Your task to perform on an android device: turn vacation reply on in the gmail app Image 0: 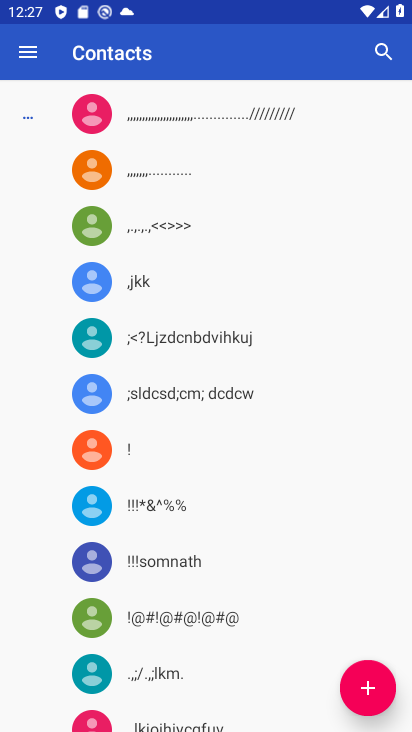
Step 0: press home button
Your task to perform on an android device: turn vacation reply on in the gmail app Image 1: 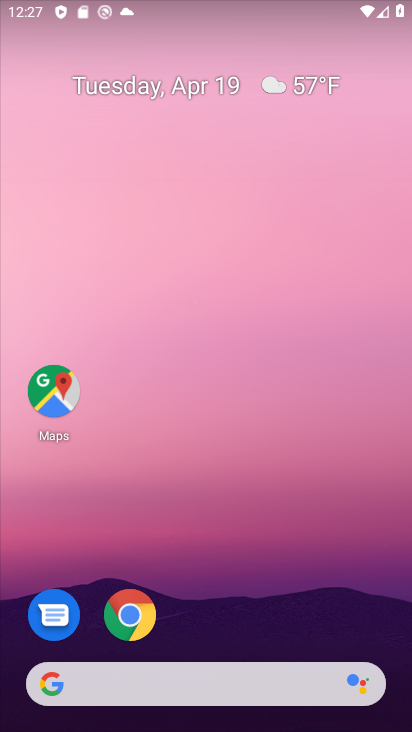
Step 1: drag from (216, 627) to (219, 235)
Your task to perform on an android device: turn vacation reply on in the gmail app Image 2: 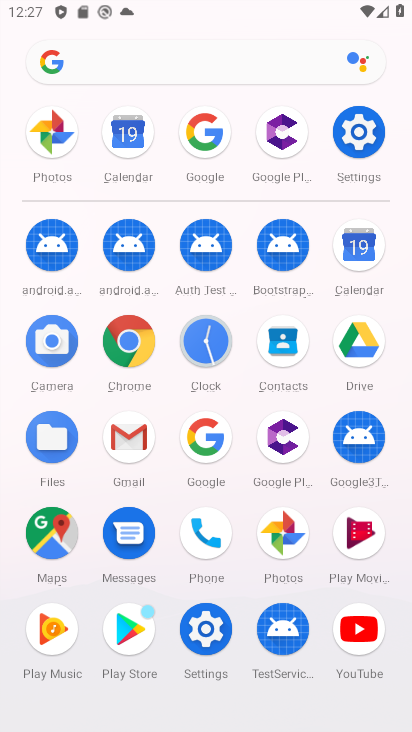
Step 2: click (133, 442)
Your task to perform on an android device: turn vacation reply on in the gmail app Image 3: 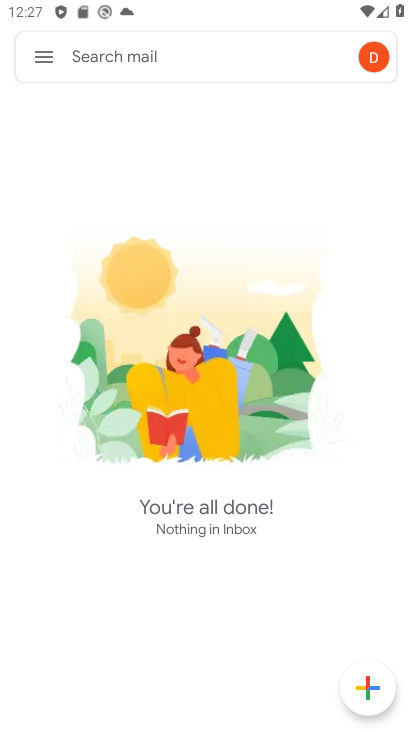
Step 3: click (50, 52)
Your task to perform on an android device: turn vacation reply on in the gmail app Image 4: 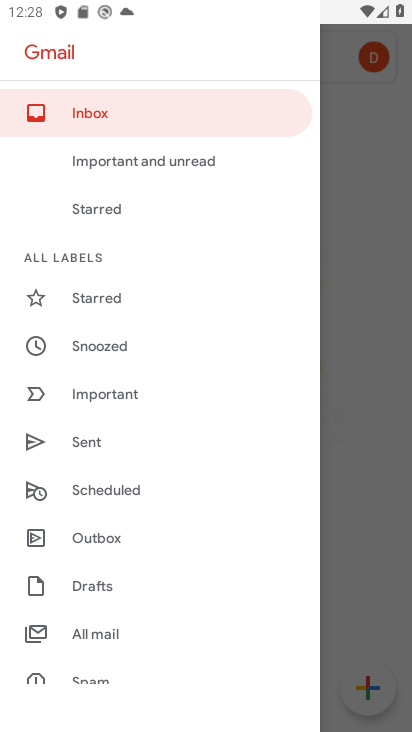
Step 4: drag from (153, 622) to (169, 282)
Your task to perform on an android device: turn vacation reply on in the gmail app Image 5: 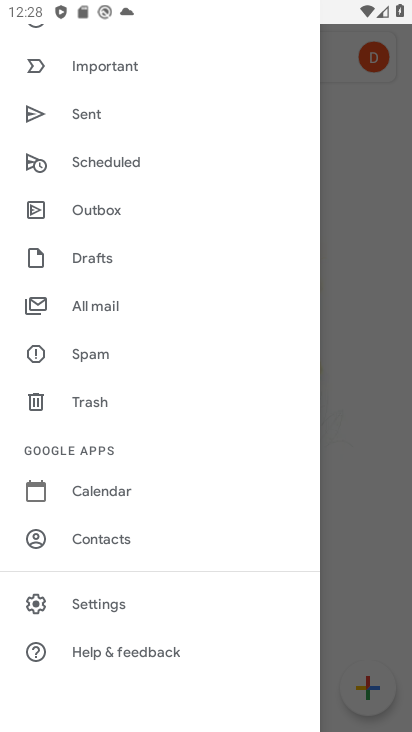
Step 5: click (101, 599)
Your task to perform on an android device: turn vacation reply on in the gmail app Image 6: 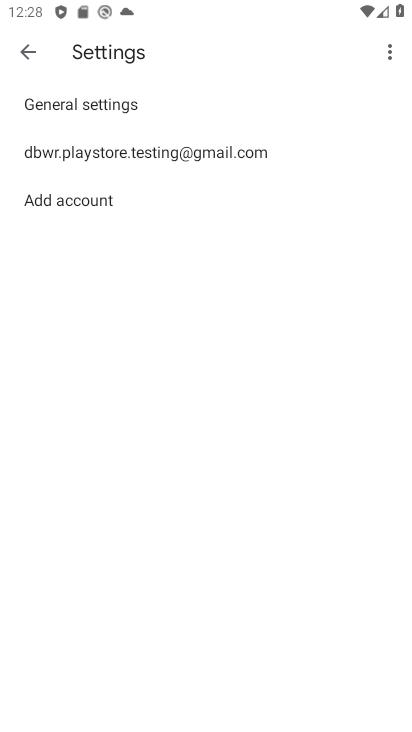
Step 6: click (150, 150)
Your task to perform on an android device: turn vacation reply on in the gmail app Image 7: 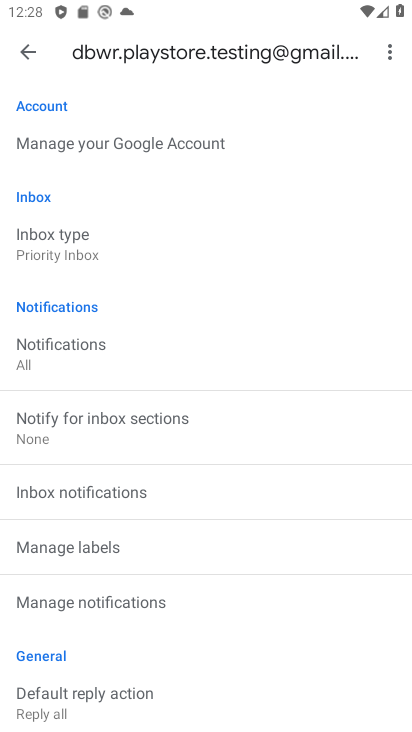
Step 7: drag from (135, 477) to (142, 240)
Your task to perform on an android device: turn vacation reply on in the gmail app Image 8: 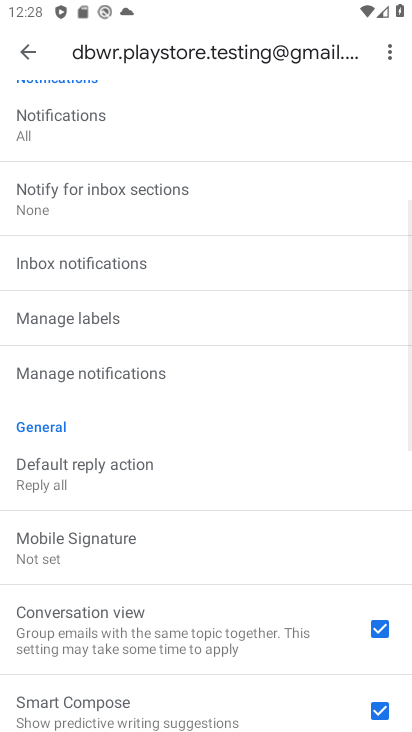
Step 8: drag from (137, 526) to (155, 337)
Your task to perform on an android device: turn vacation reply on in the gmail app Image 9: 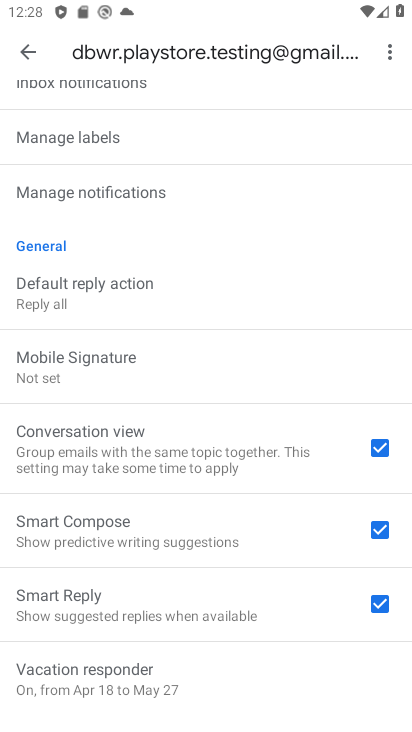
Step 9: drag from (164, 625) to (193, 338)
Your task to perform on an android device: turn vacation reply on in the gmail app Image 10: 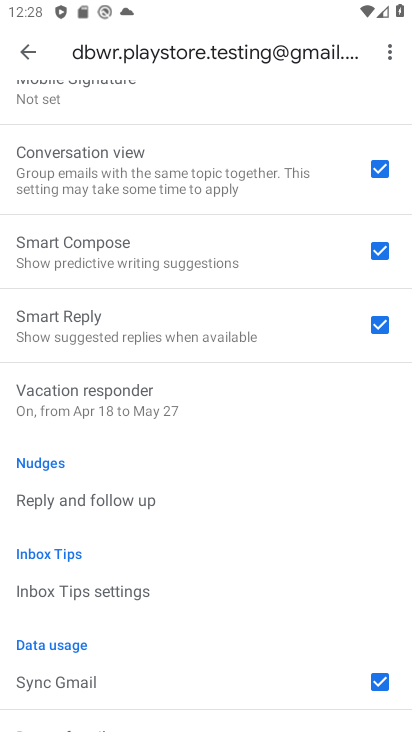
Step 10: click (116, 406)
Your task to perform on an android device: turn vacation reply on in the gmail app Image 11: 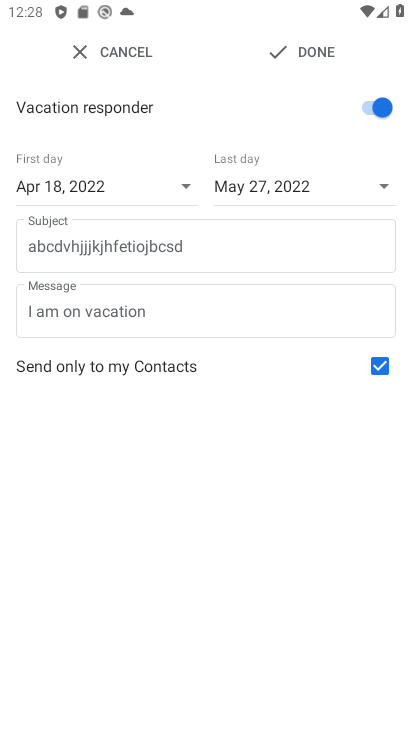
Step 11: press back button
Your task to perform on an android device: turn vacation reply on in the gmail app Image 12: 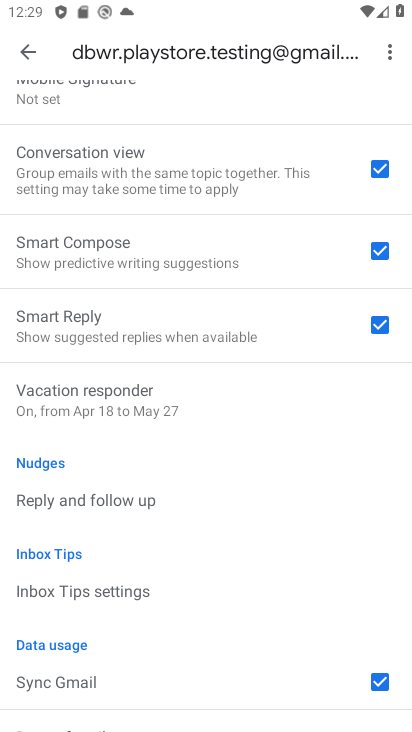
Step 12: click (110, 405)
Your task to perform on an android device: turn vacation reply on in the gmail app Image 13: 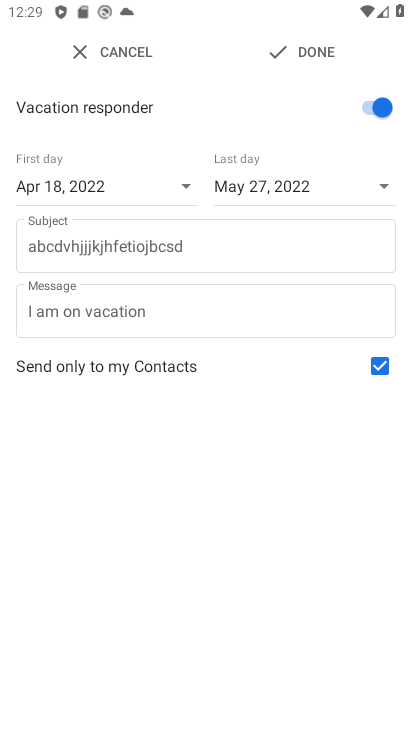
Step 13: task complete